Your task to perform on an android device: Open settings on Google Maps Image 0: 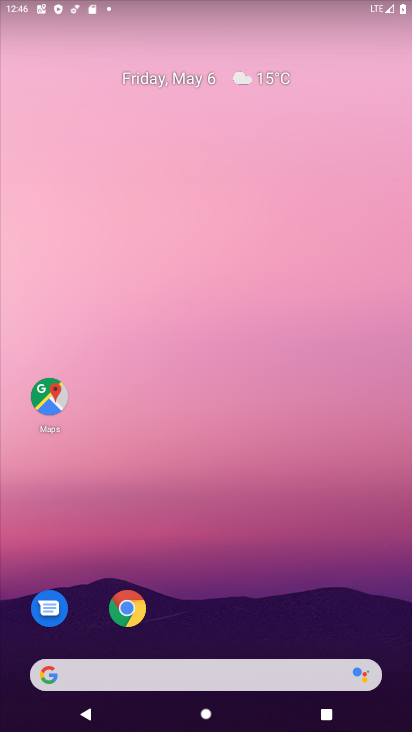
Step 0: drag from (272, 517) to (272, 203)
Your task to perform on an android device: Open settings on Google Maps Image 1: 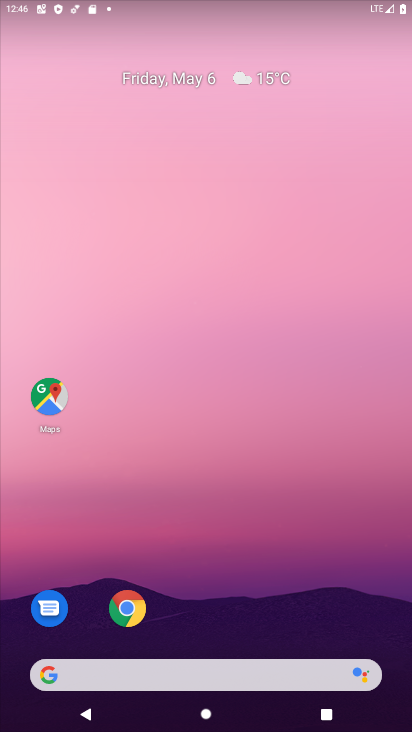
Step 1: drag from (233, 633) to (216, 225)
Your task to perform on an android device: Open settings on Google Maps Image 2: 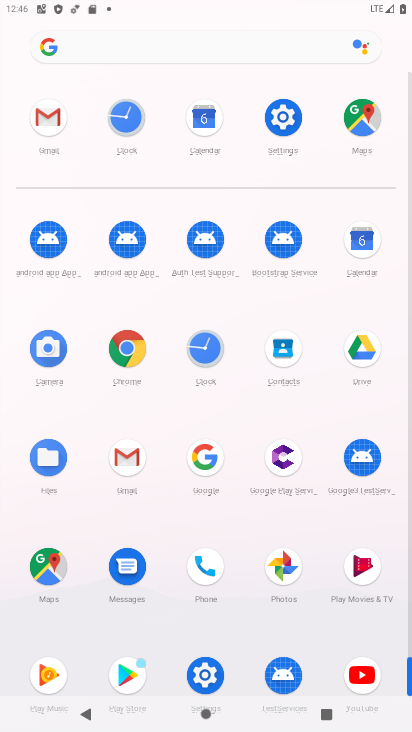
Step 2: click (216, 458)
Your task to perform on an android device: Open settings on Google Maps Image 3: 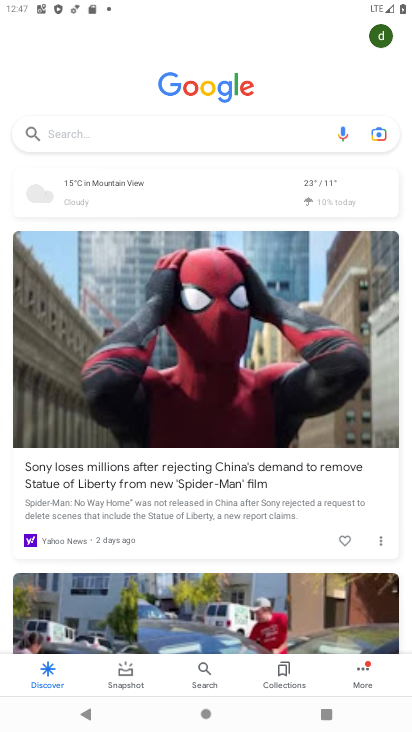
Step 3: task complete